Your task to perform on an android device: Open the Play Movies app and select the watchlist tab. Image 0: 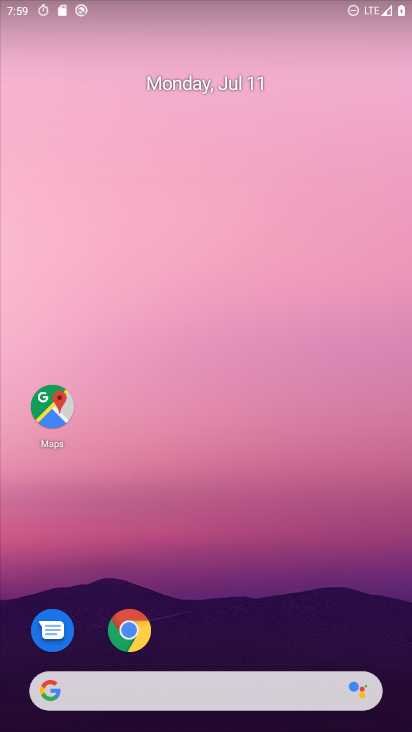
Step 0: drag from (159, 703) to (294, 298)
Your task to perform on an android device: Open the Play Movies app and select the watchlist tab. Image 1: 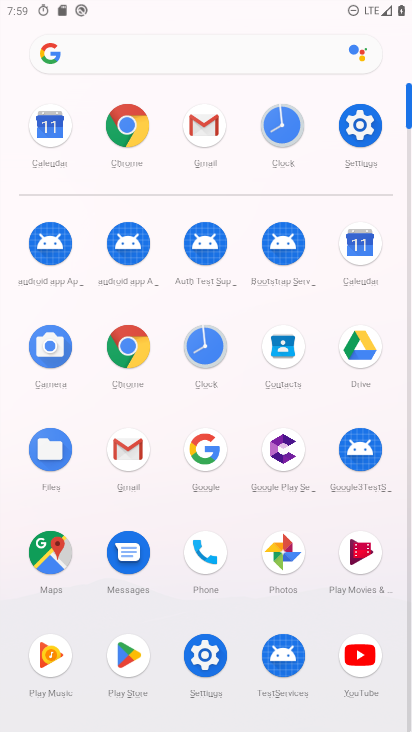
Step 1: click (367, 557)
Your task to perform on an android device: Open the Play Movies app and select the watchlist tab. Image 2: 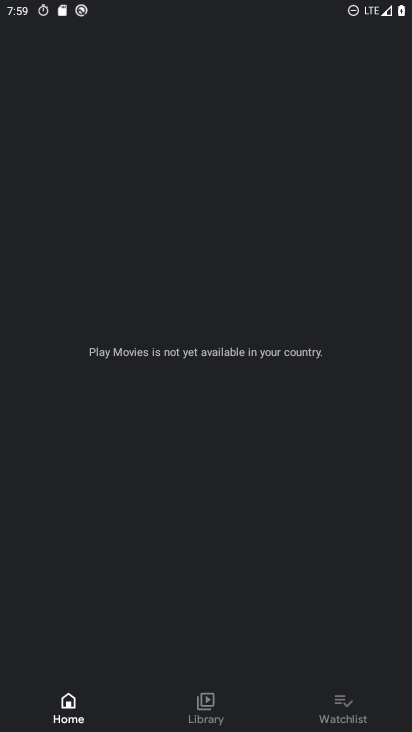
Step 2: click (346, 695)
Your task to perform on an android device: Open the Play Movies app and select the watchlist tab. Image 3: 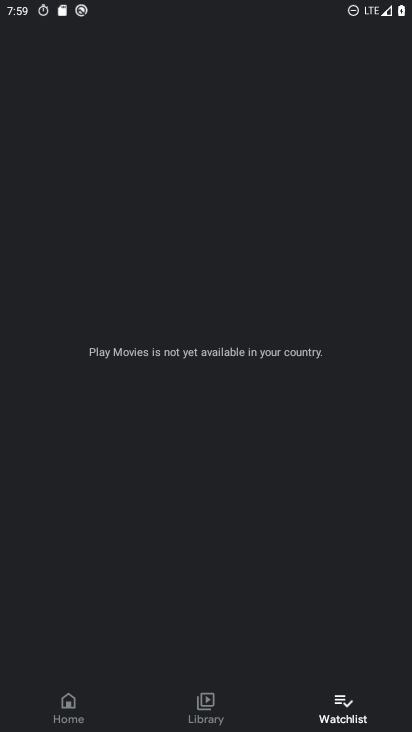
Step 3: task complete